Your task to perform on an android device: Open ESPN.com Image 0: 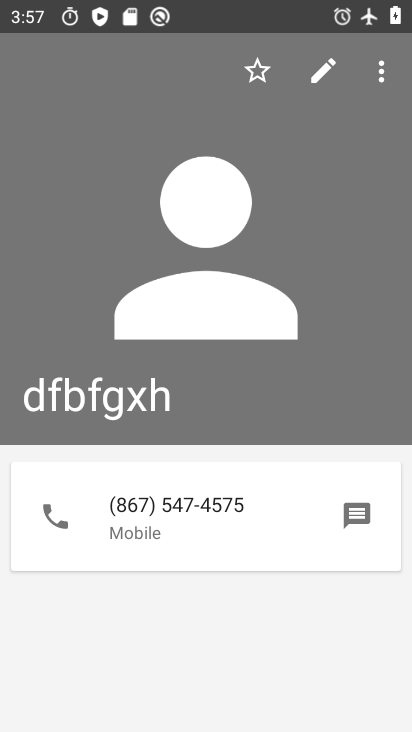
Step 0: press home button
Your task to perform on an android device: Open ESPN.com Image 1: 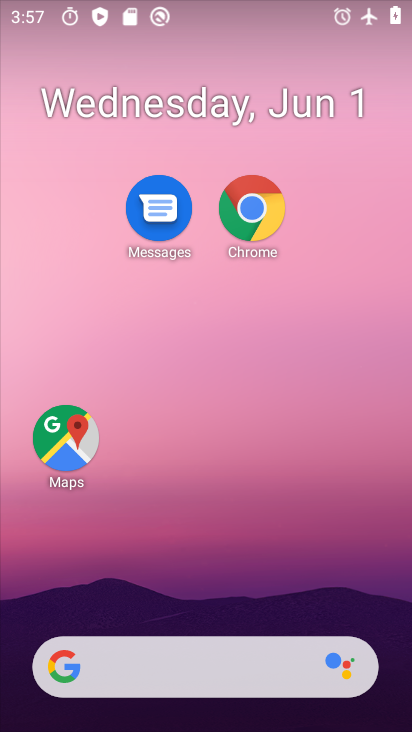
Step 1: click (253, 229)
Your task to perform on an android device: Open ESPN.com Image 2: 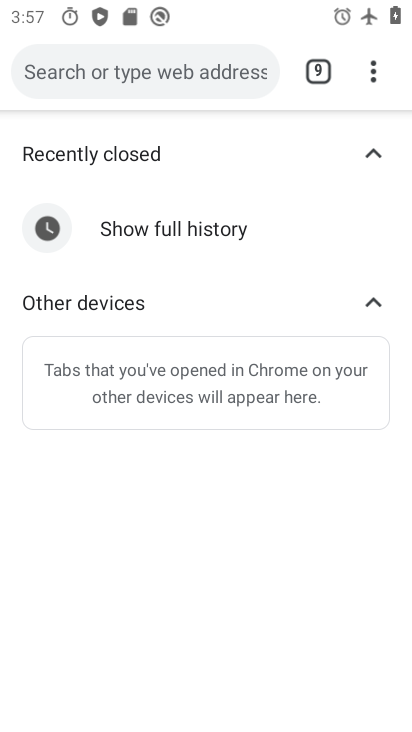
Step 2: click (298, 76)
Your task to perform on an android device: Open ESPN.com Image 3: 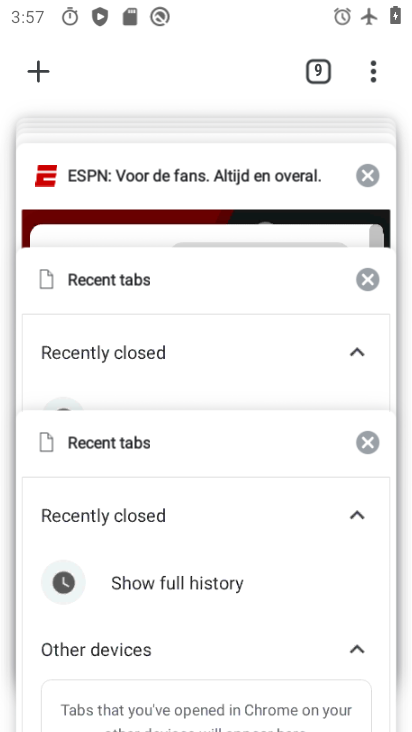
Step 3: click (172, 194)
Your task to perform on an android device: Open ESPN.com Image 4: 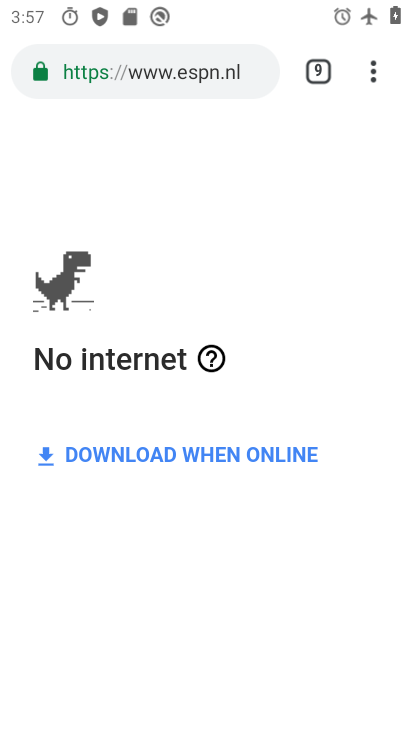
Step 4: task complete